Your task to perform on an android device: Search for Italian restaurants on Maps Image 0: 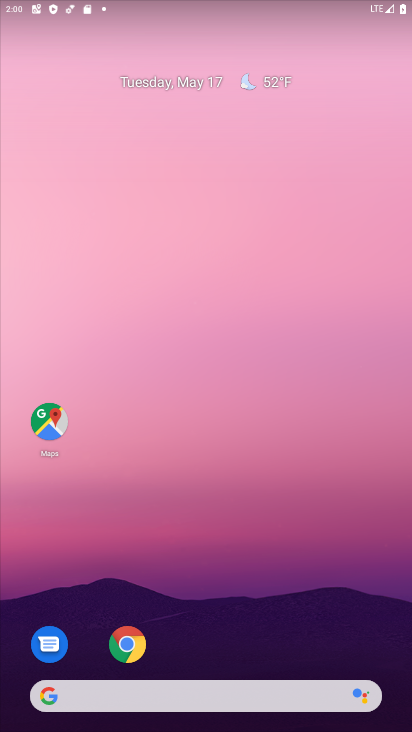
Step 0: click (30, 426)
Your task to perform on an android device: Search for Italian restaurants on Maps Image 1: 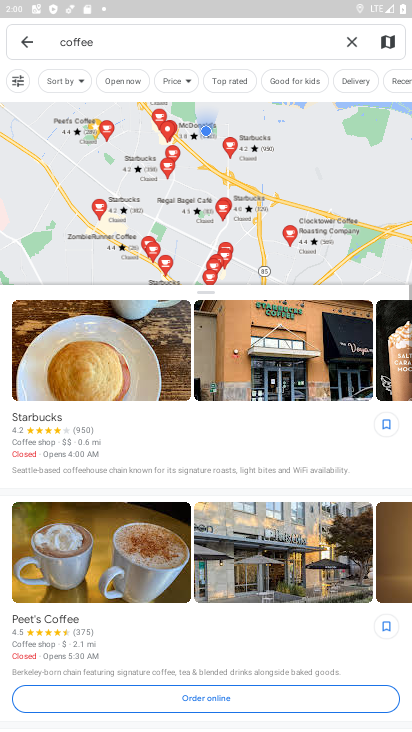
Step 1: click (31, 44)
Your task to perform on an android device: Search for Italian restaurants on Maps Image 2: 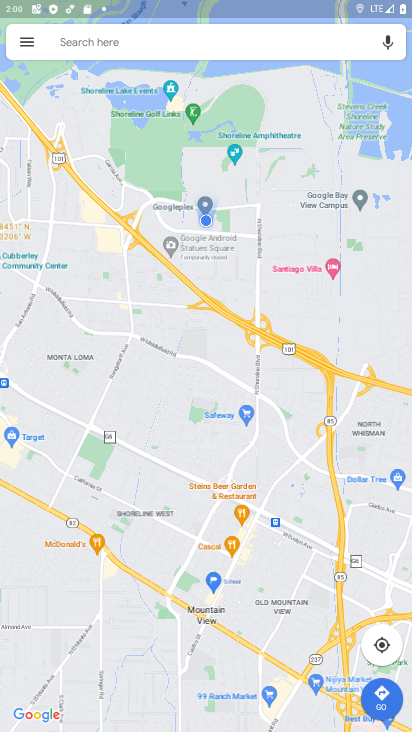
Step 2: click (34, 49)
Your task to perform on an android device: Search for Italian restaurants on Maps Image 3: 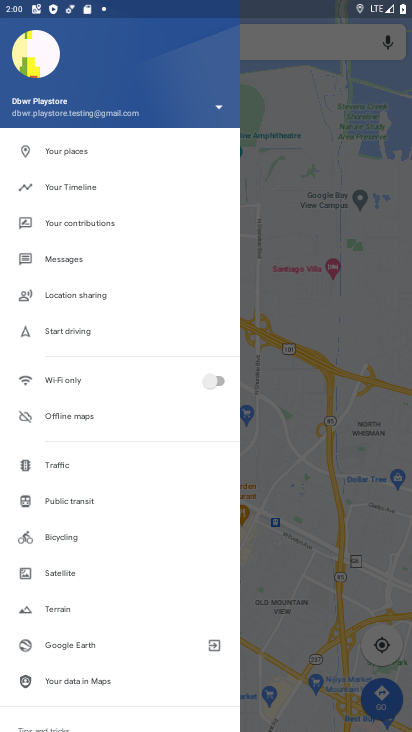
Step 3: click (372, 239)
Your task to perform on an android device: Search for Italian restaurants on Maps Image 4: 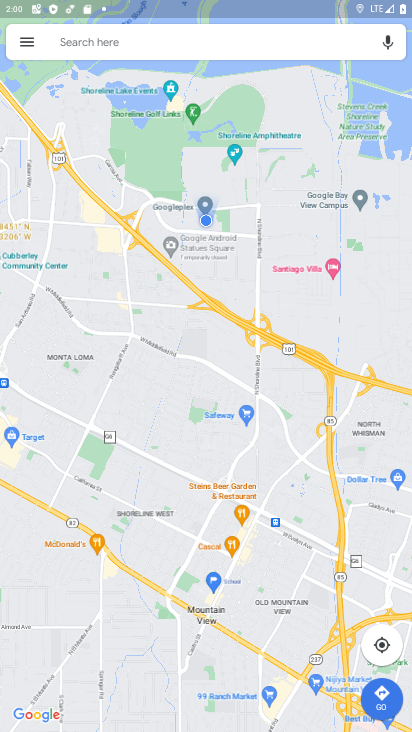
Step 4: click (255, 40)
Your task to perform on an android device: Search for Italian restaurants on Maps Image 5: 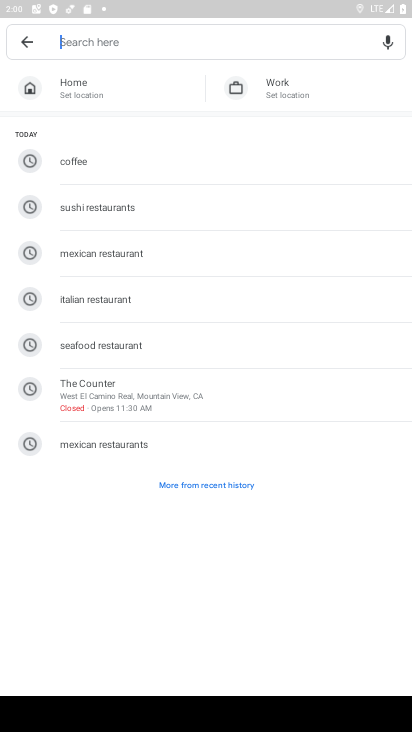
Step 5: click (124, 296)
Your task to perform on an android device: Search for Italian restaurants on Maps Image 6: 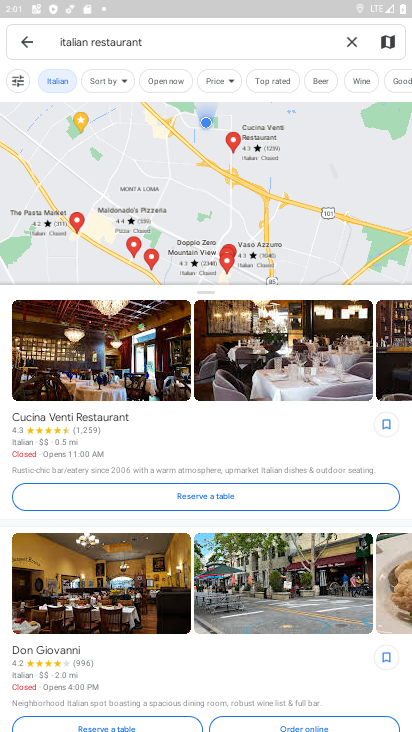
Step 6: task complete